Your task to perform on an android device: change the clock display to digital Image 0: 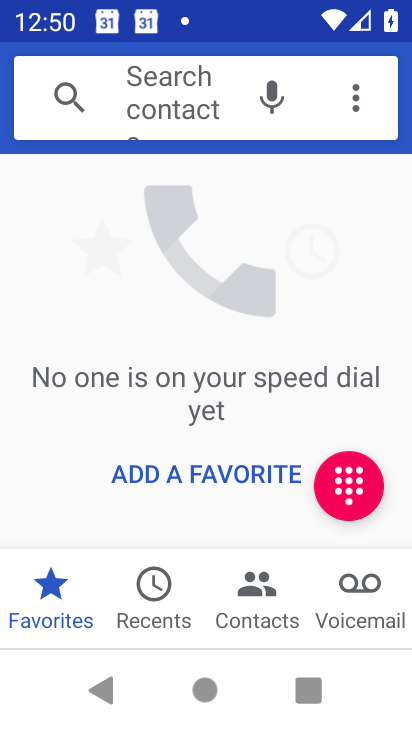
Step 0: press home button
Your task to perform on an android device: change the clock display to digital Image 1: 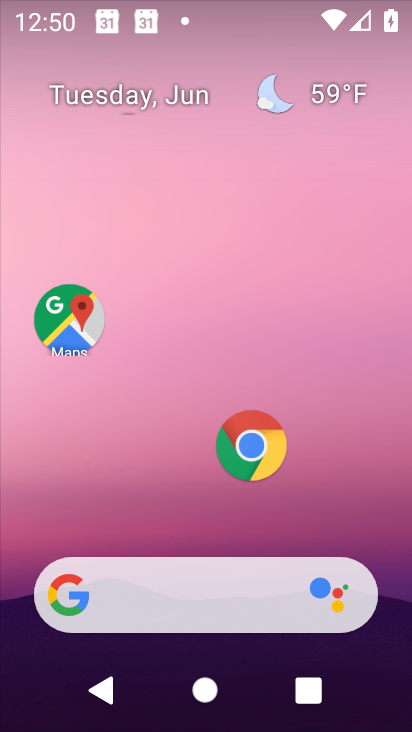
Step 1: drag from (120, 519) to (172, 83)
Your task to perform on an android device: change the clock display to digital Image 2: 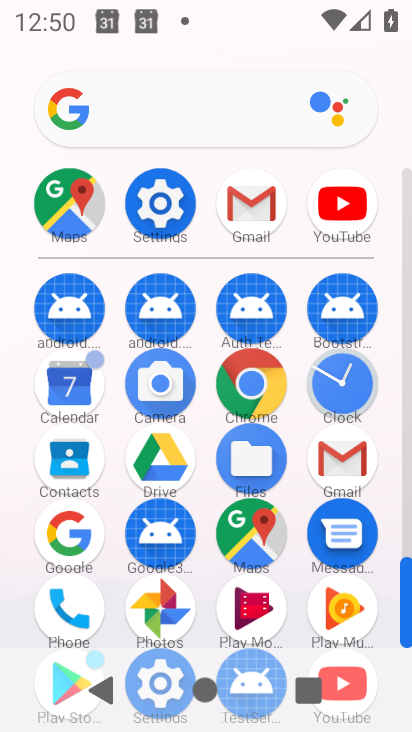
Step 2: click (333, 369)
Your task to perform on an android device: change the clock display to digital Image 3: 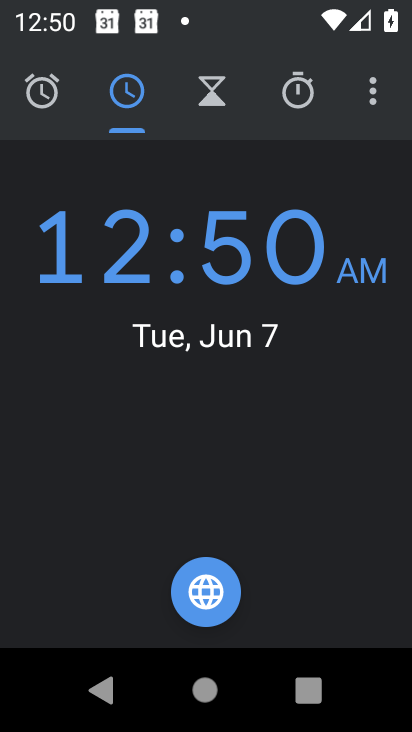
Step 3: click (385, 85)
Your task to perform on an android device: change the clock display to digital Image 4: 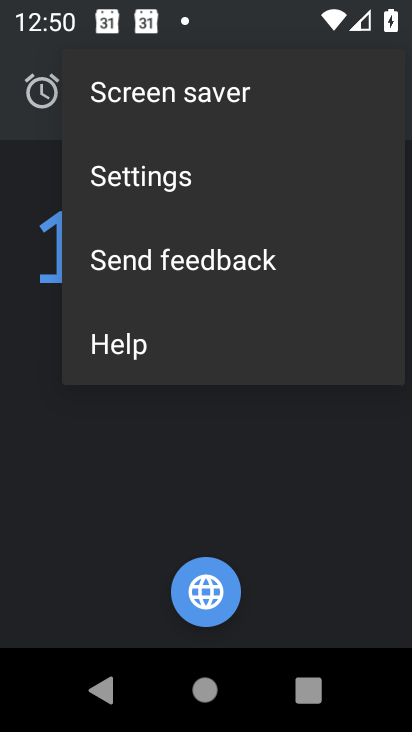
Step 4: click (210, 200)
Your task to perform on an android device: change the clock display to digital Image 5: 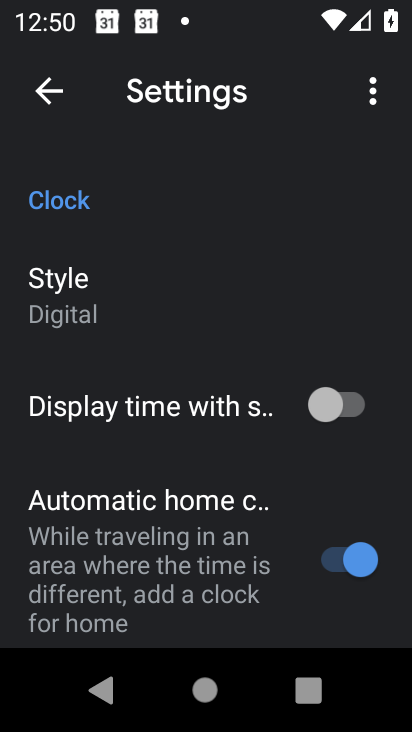
Step 5: task complete